Your task to perform on an android device: Go to Amazon Image 0: 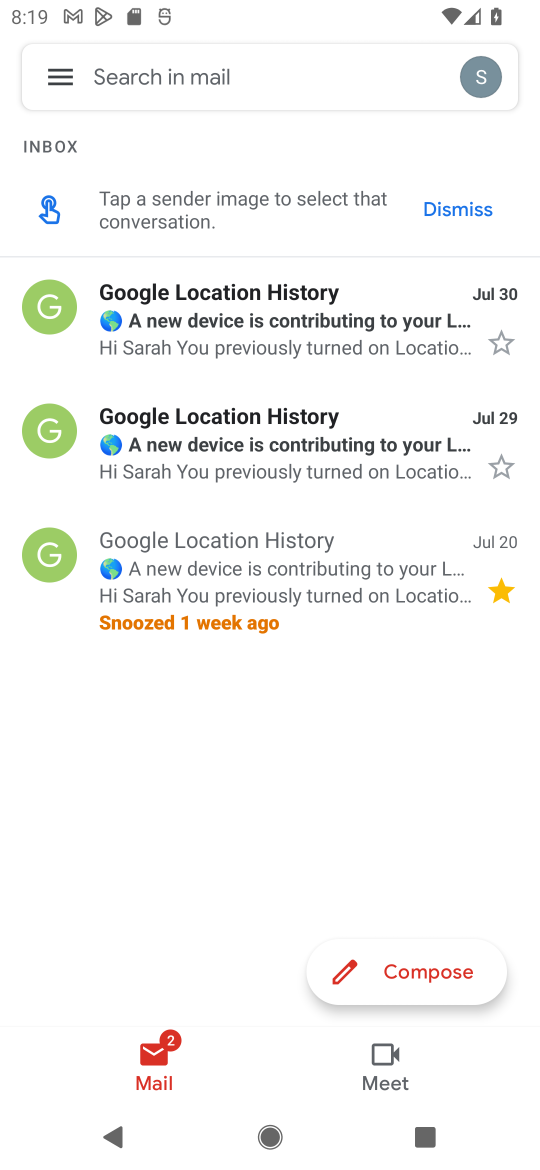
Step 0: press home button
Your task to perform on an android device: Go to Amazon Image 1: 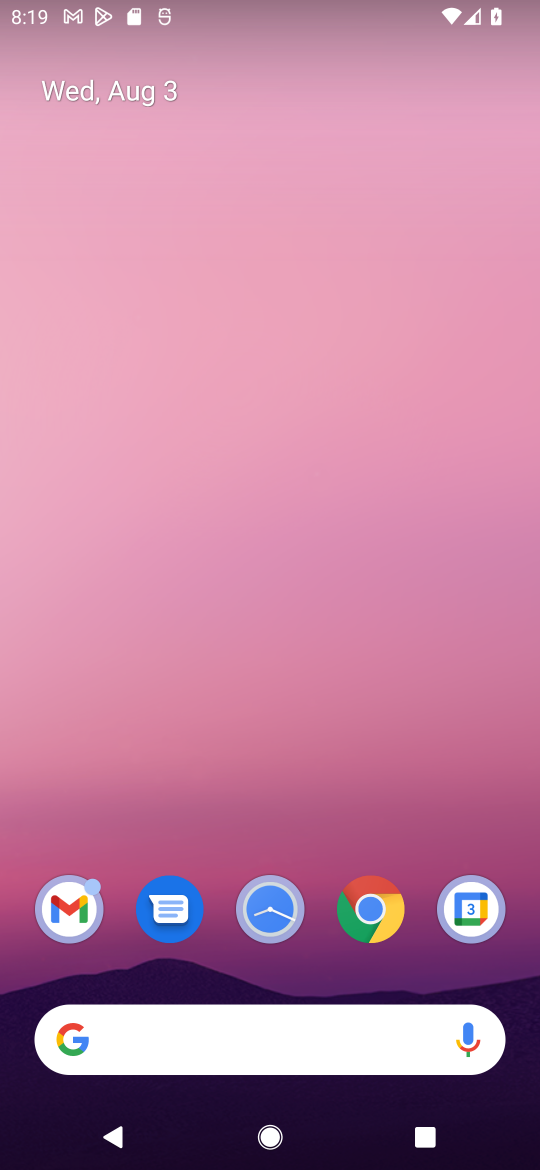
Step 1: drag from (335, 818) to (376, 193)
Your task to perform on an android device: Go to Amazon Image 2: 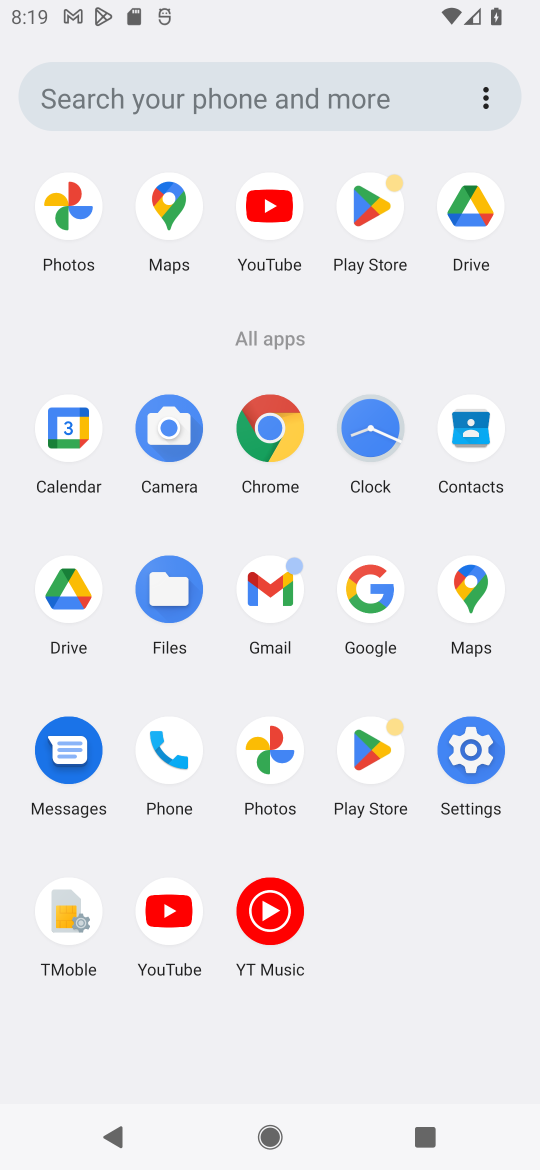
Step 2: click (278, 438)
Your task to perform on an android device: Go to Amazon Image 3: 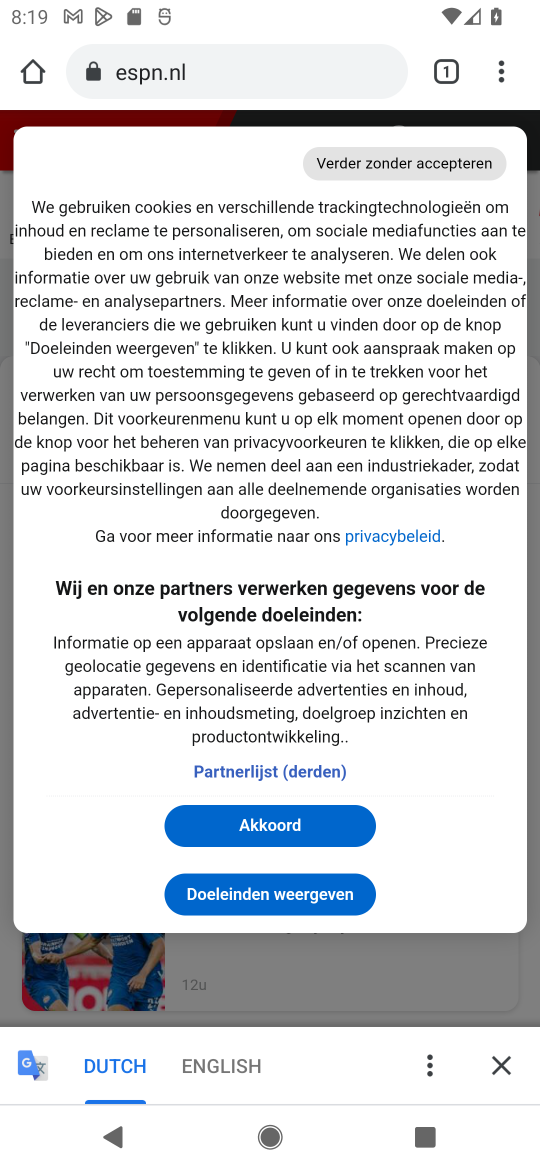
Step 3: click (252, 78)
Your task to perform on an android device: Go to Amazon Image 4: 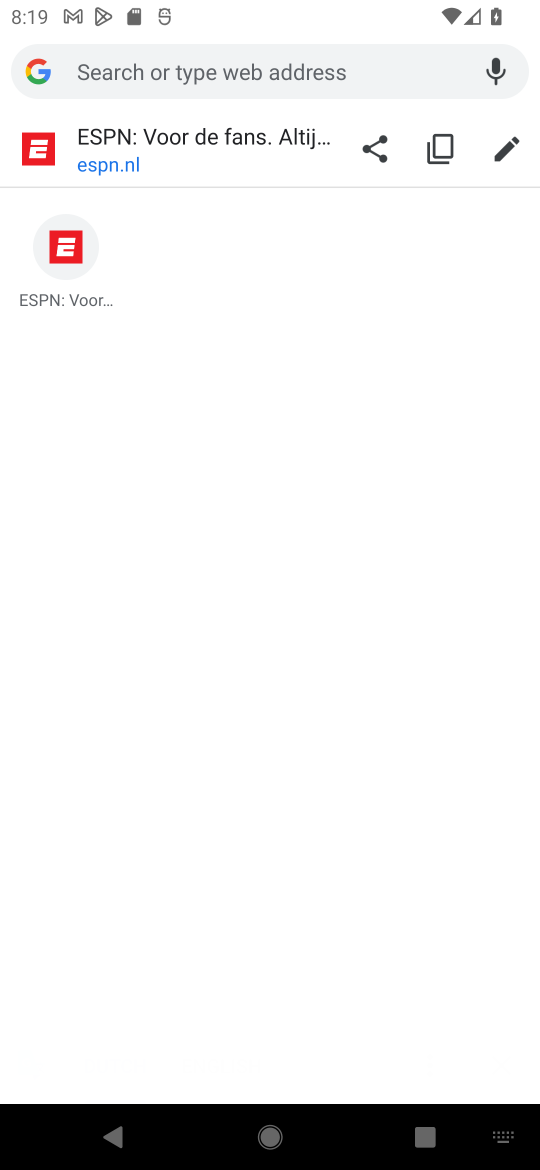
Step 4: type "amazon"
Your task to perform on an android device: Go to Amazon Image 5: 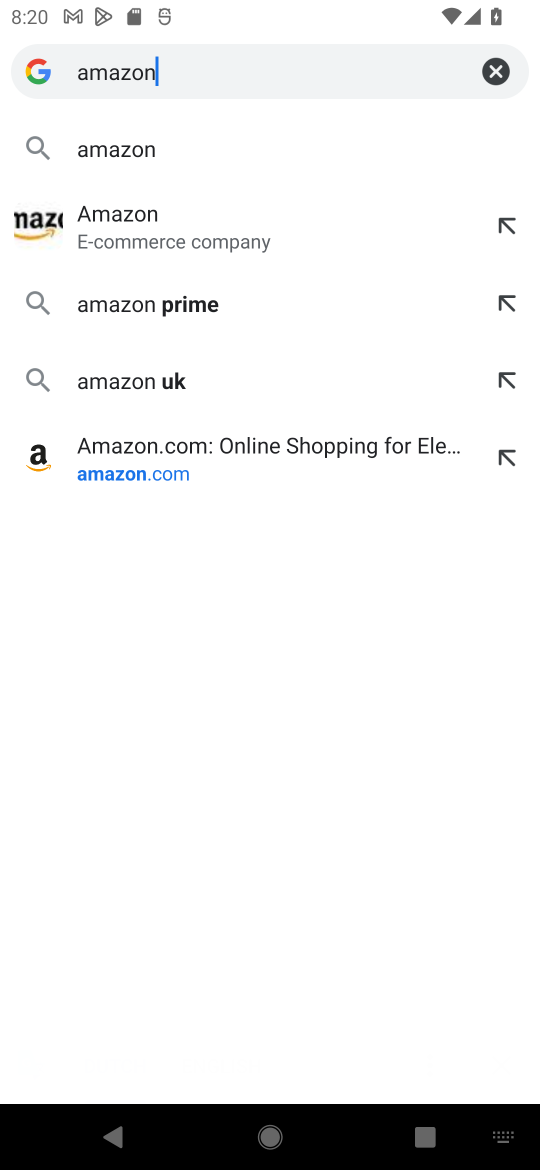
Step 5: click (178, 219)
Your task to perform on an android device: Go to Amazon Image 6: 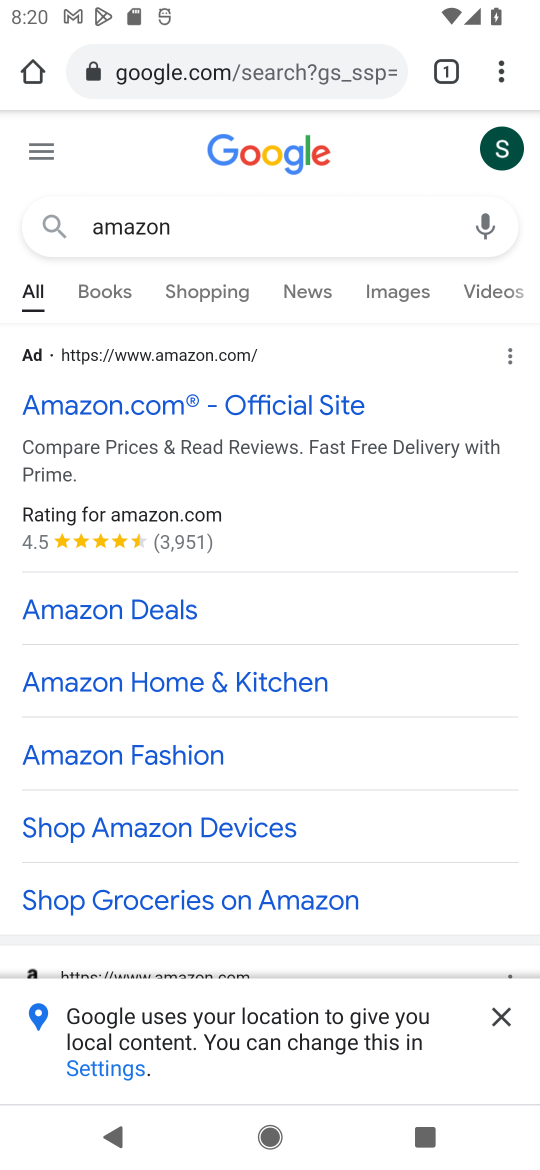
Step 6: task complete